Your task to perform on an android device: turn on showing notifications on the lock screen Image 0: 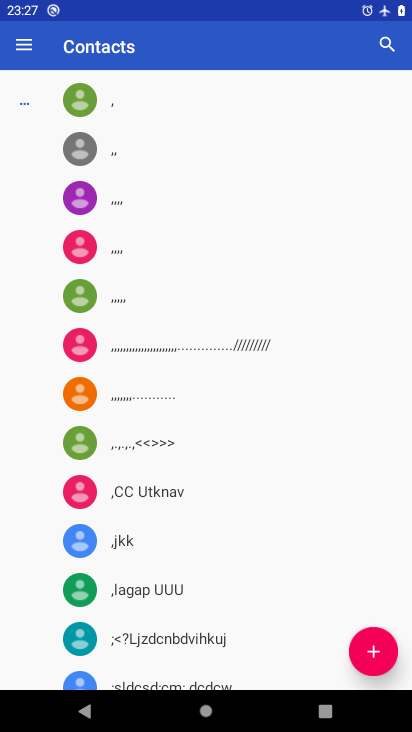
Step 0: press home button
Your task to perform on an android device: turn on showing notifications on the lock screen Image 1: 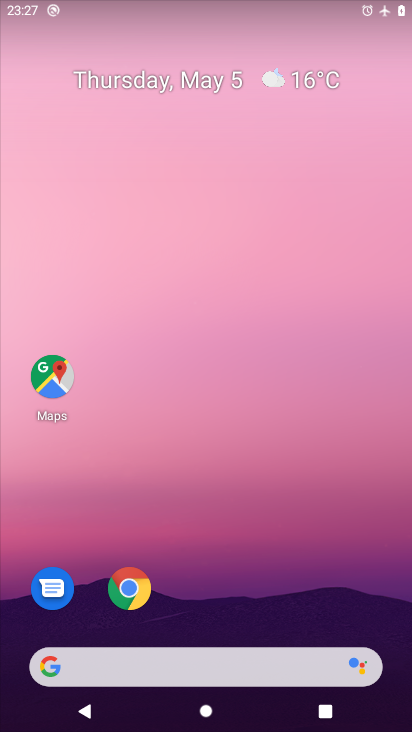
Step 1: drag from (257, 574) to (246, 187)
Your task to perform on an android device: turn on showing notifications on the lock screen Image 2: 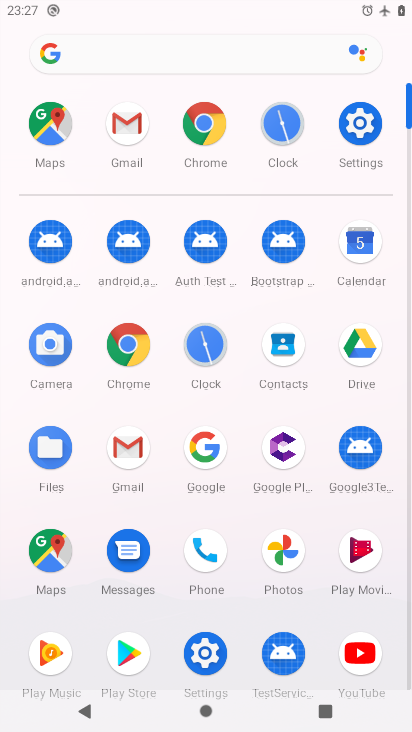
Step 2: click (354, 131)
Your task to perform on an android device: turn on showing notifications on the lock screen Image 3: 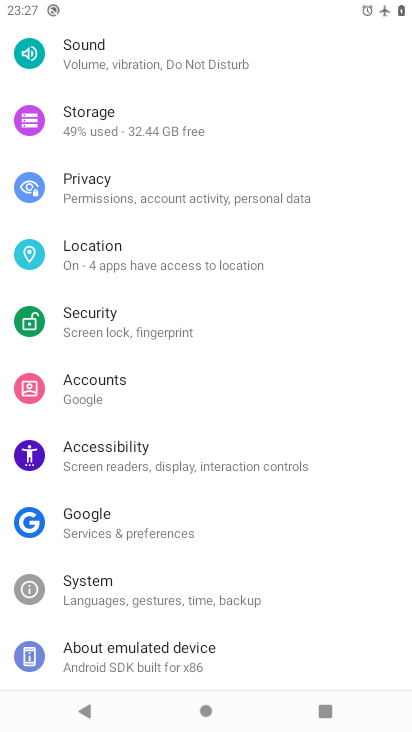
Step 3: drag from (282, 124) to (212, 467)
Your task to perform on an android device: turn on showing notifications on the lock screen Image 4: 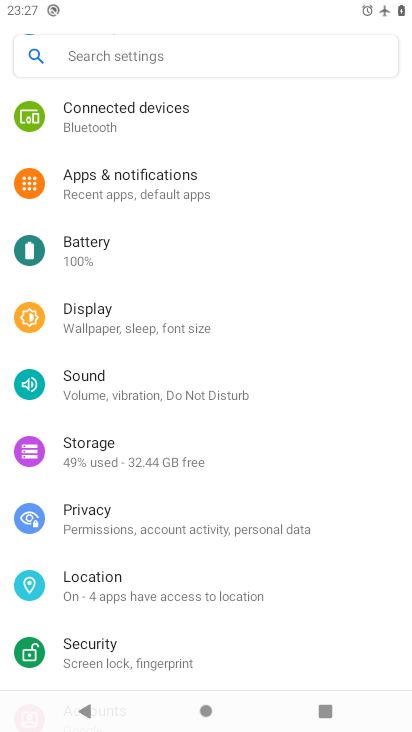
Step 4: click (183, 180)
Your task to perform on an android device: turn on showing notifications on the lock screen Image 5: 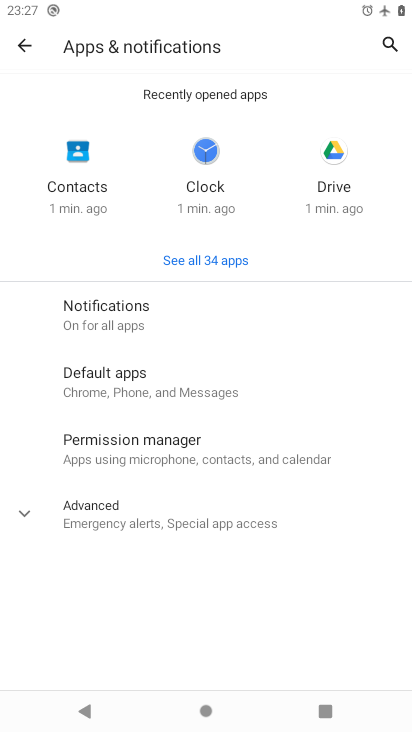
Step 5: click (196, 323)
Your task to perform on an android device: turn on showing notifications on the lock screen Image 6: 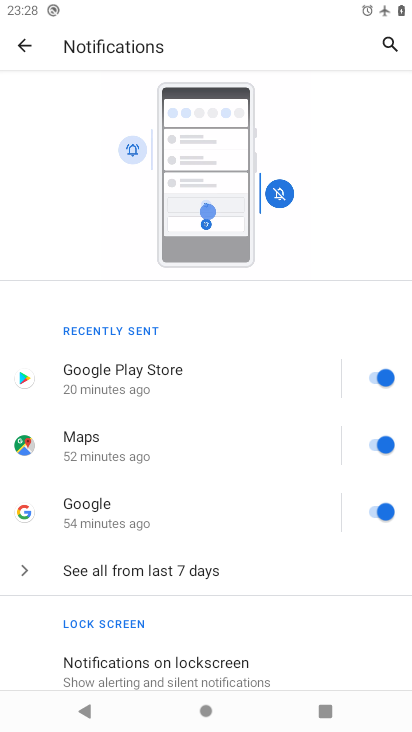
Step 6: drag from (280, 618) to (236, 255)
Your task to perform on an android device: turn on showing notifications on the lock screen Image 7: 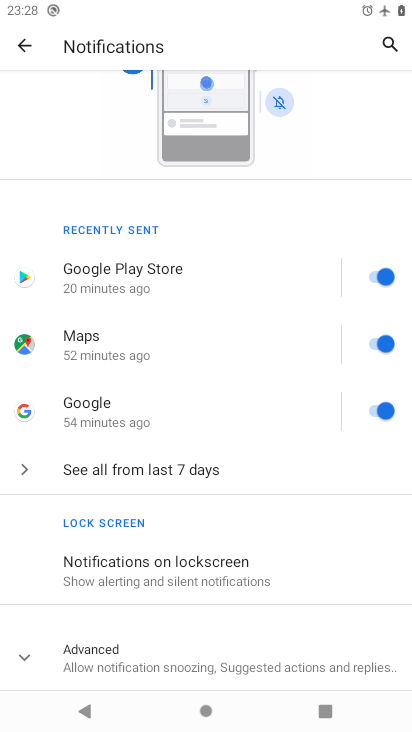
Step 7: click (283, 571)
Your task to perform on an android device: turn on showing notifications on the lock screen Image 8: 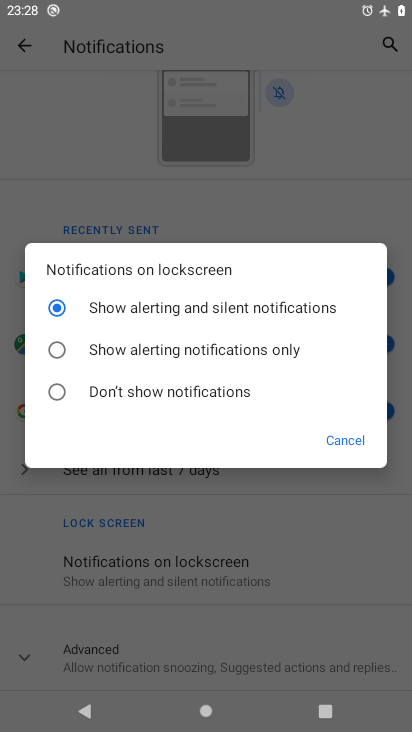
Step 8: task complete